Your task to perform on an android device: delete location history Image 0: 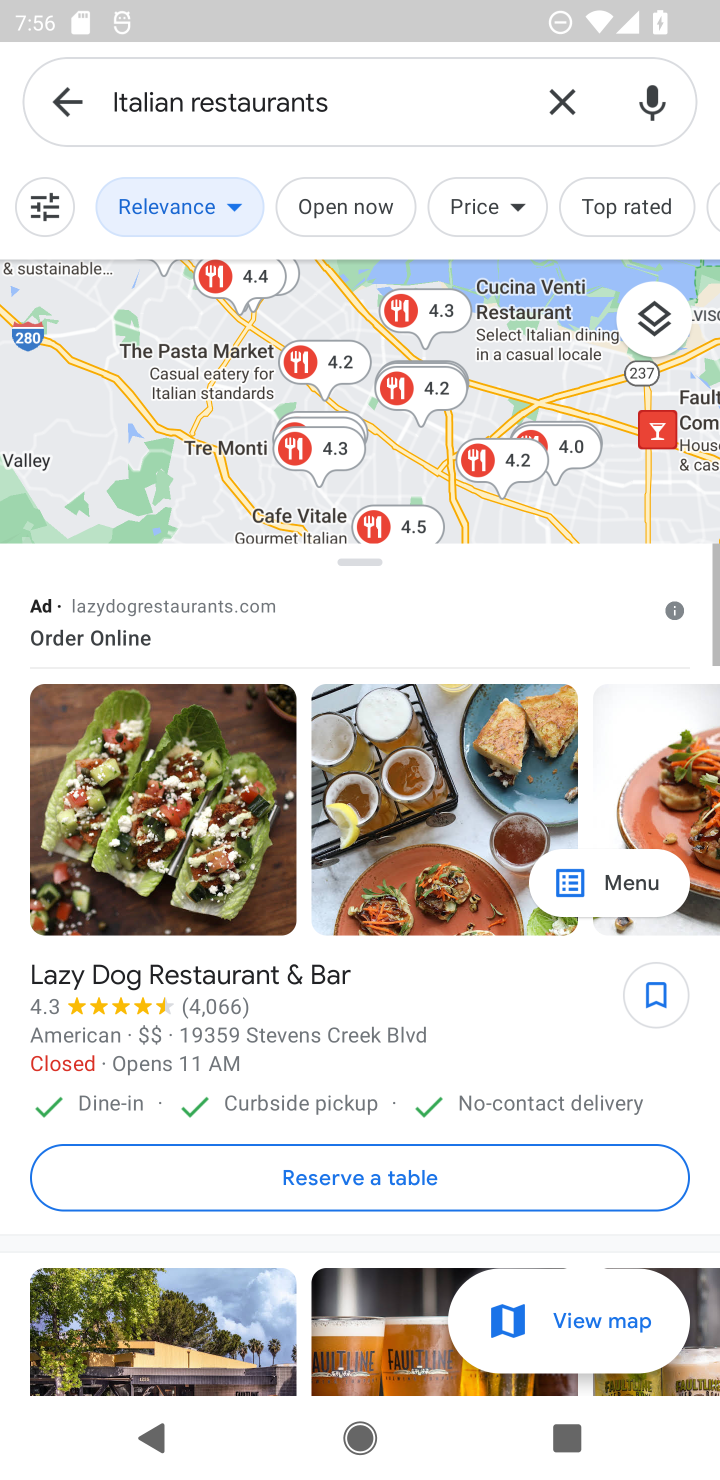
Step 0: press home button
Your task to perform on an android device: delete location history Image 1: 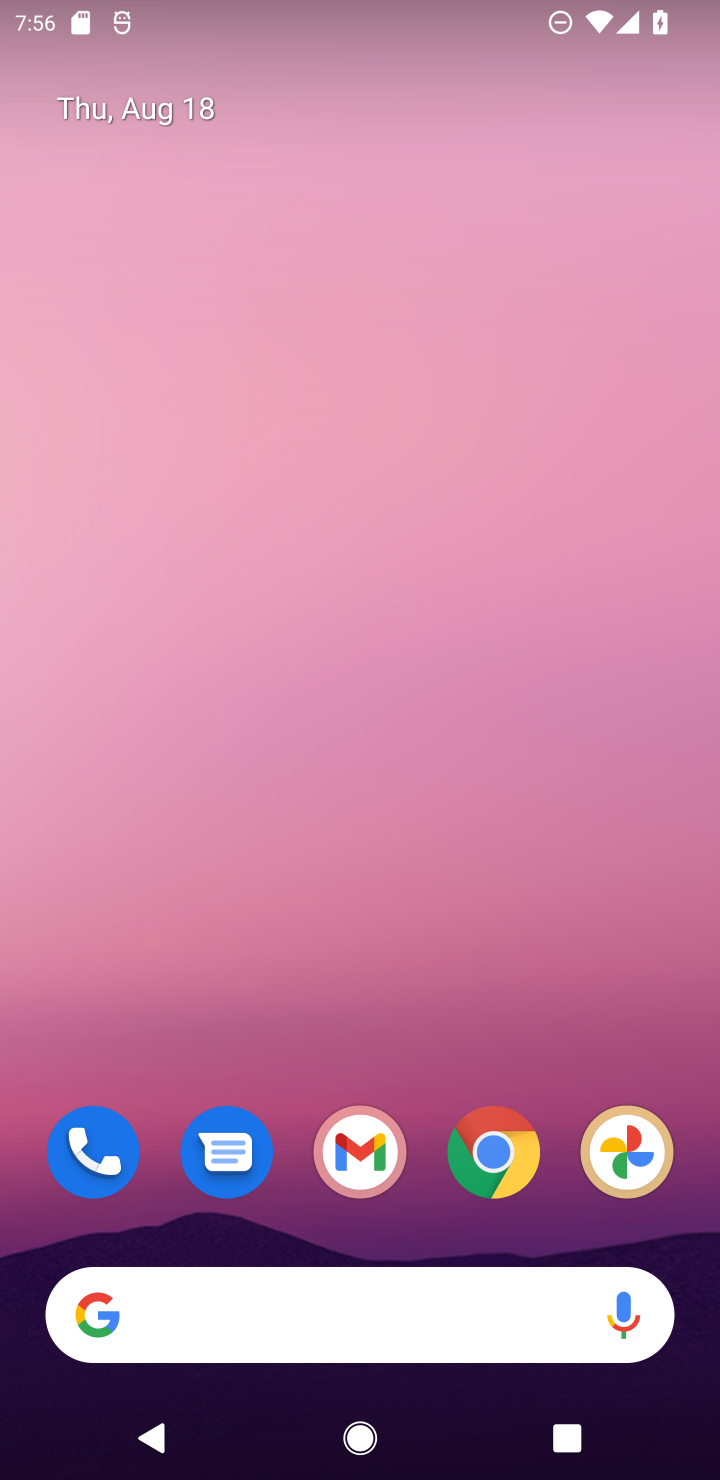
Step 1: drag from (432, 325) to (442, 203)
Your task to perform on an android device: delete location history Image 2: 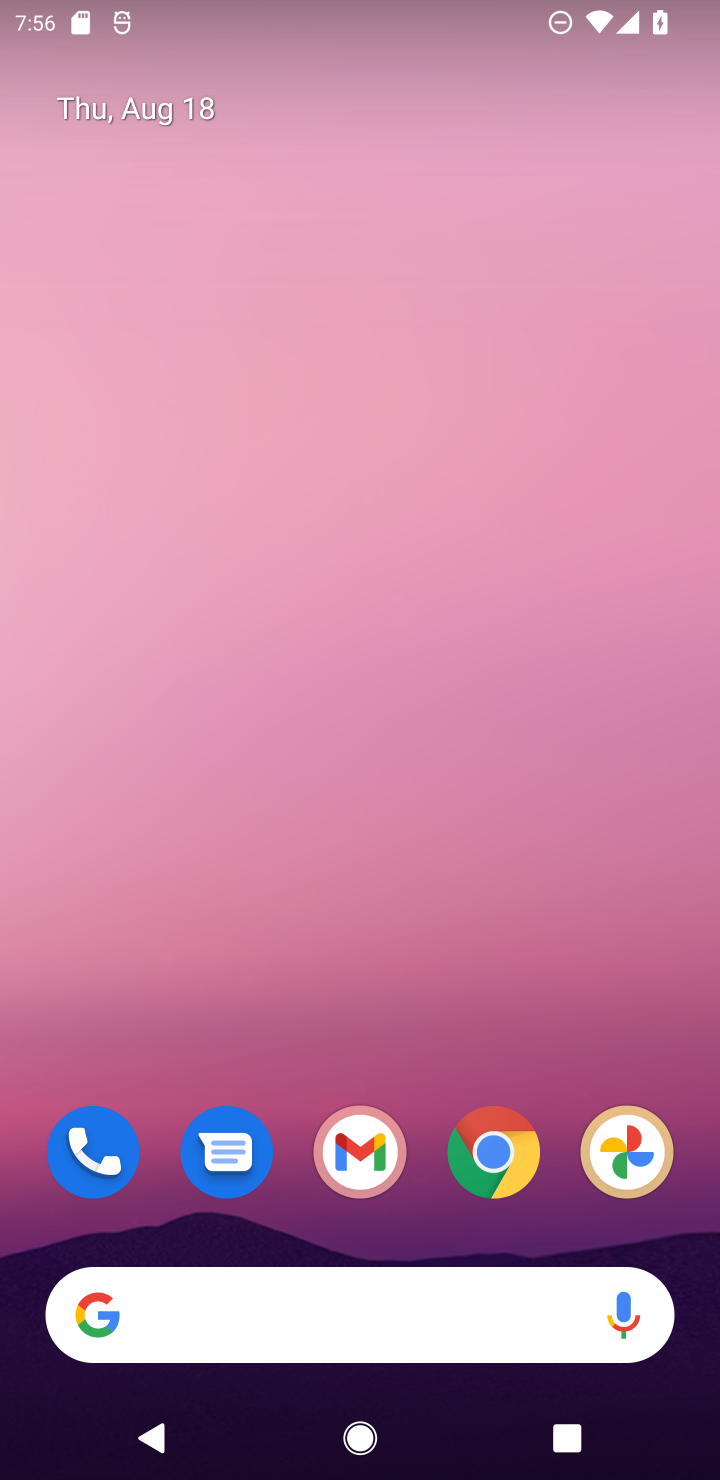
Step 2: drag from (413, 1093) to (370, 5)
Your task to perform on an android device: delete location history Image 3: 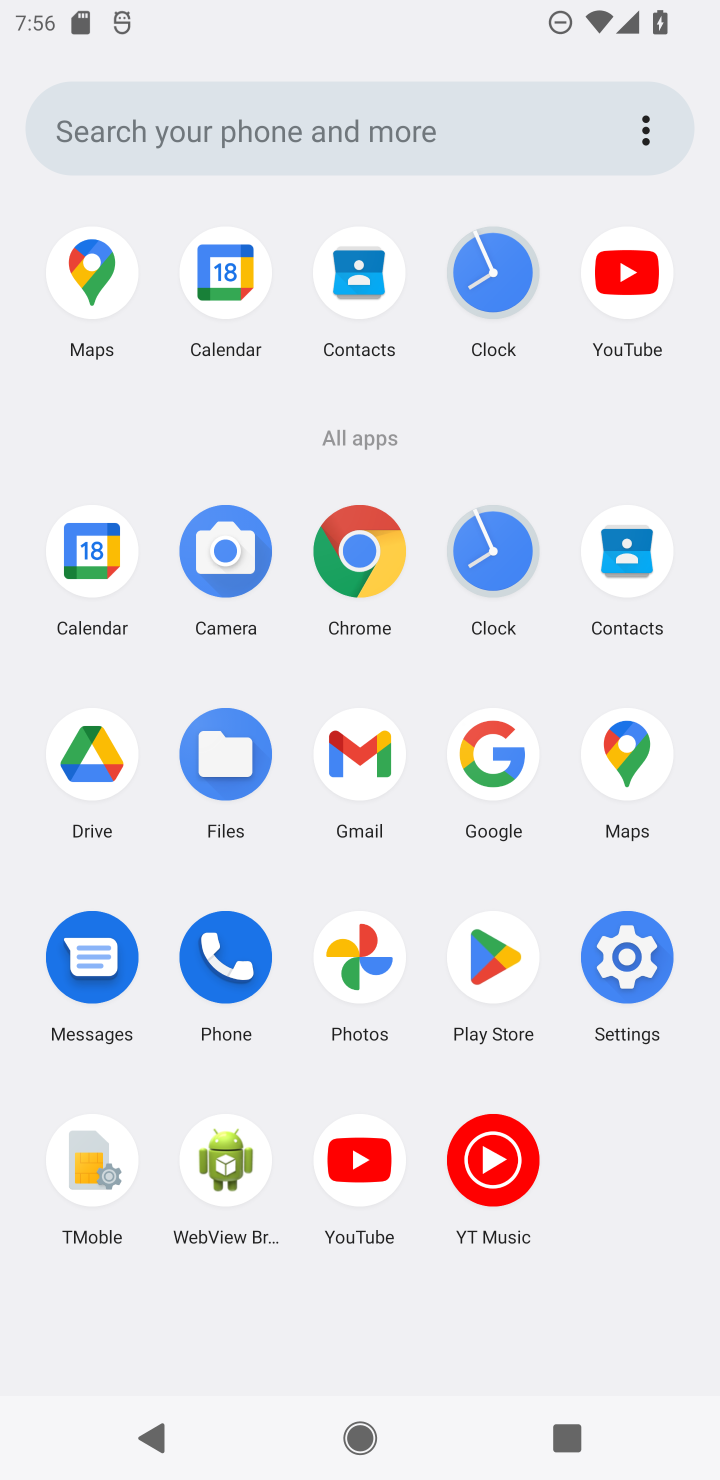
Step 3: click (367, 756)
Your task to perform on an android device: delete location history Image 4: 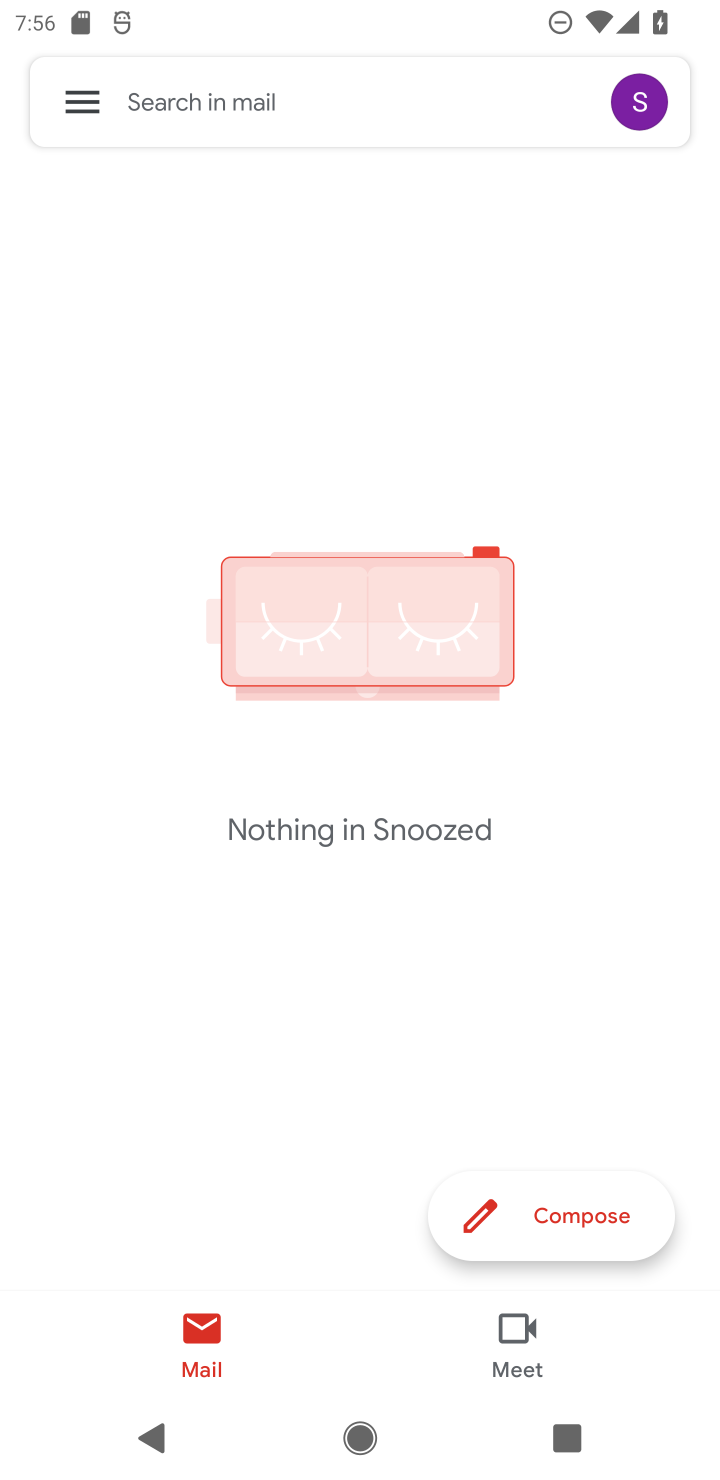
Step 4: press back button
Your task to perform on an android device: delete location history Image 5: 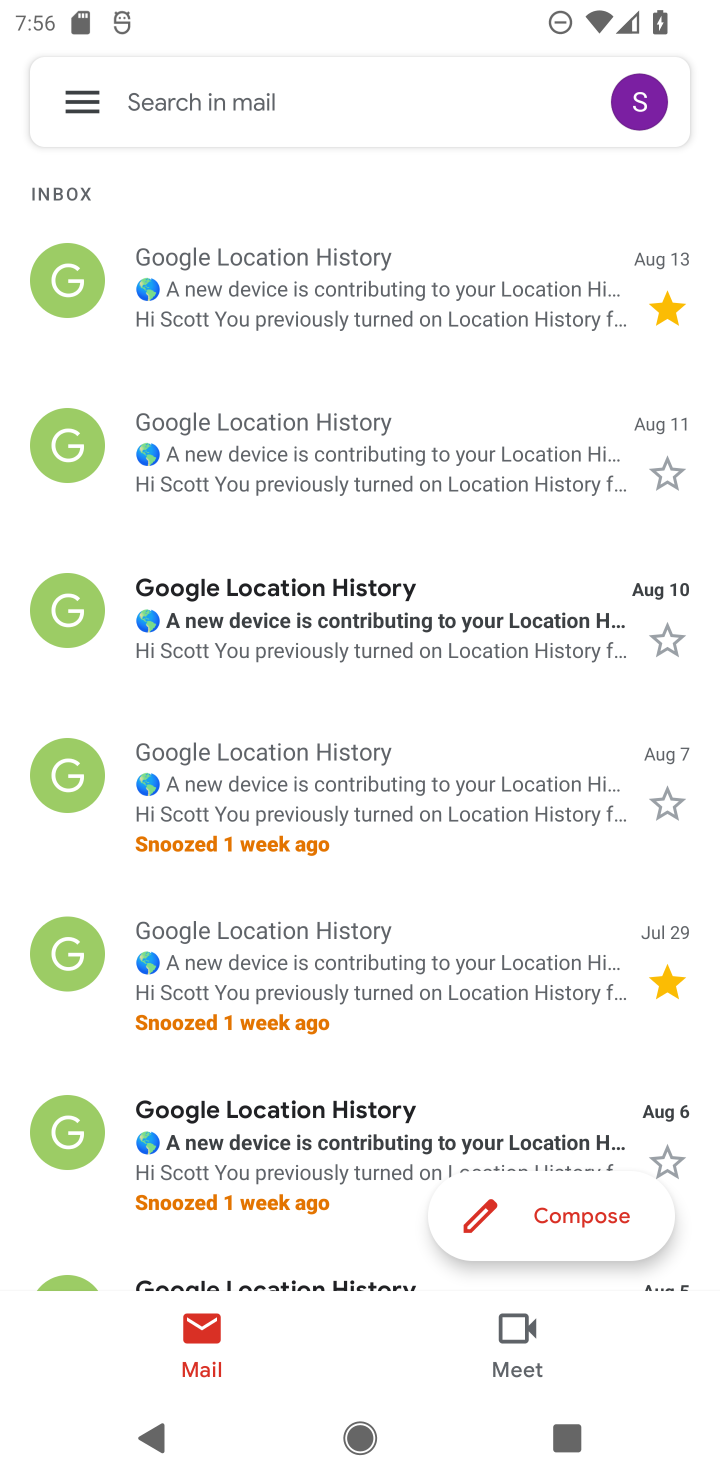
Step 5: press back button
Your task to perform on an android device: delete location history Image 6: 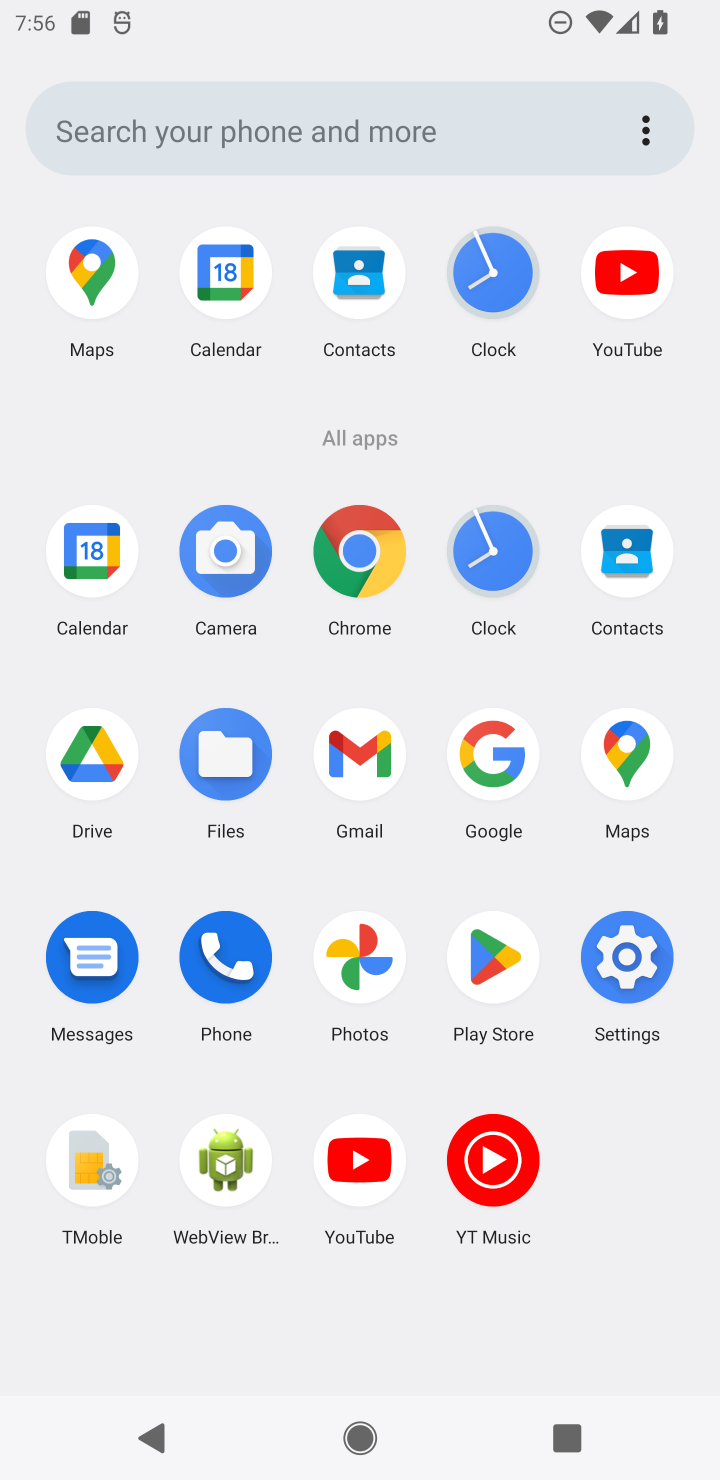
Step 6: click (621, 964)
Your task to perform on an android device: delete location history Image 7: 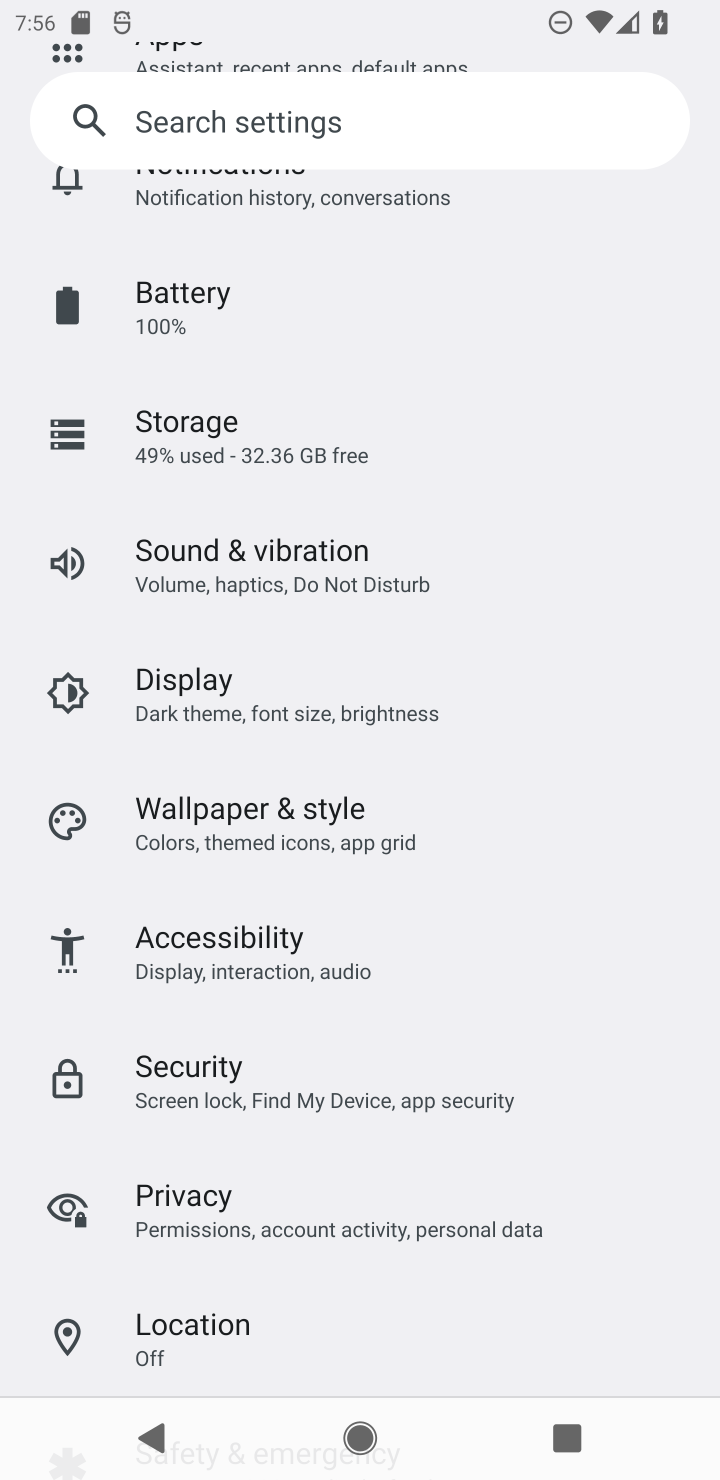
Step 7: click (220, 1332)
Your task to perform on an android device: delete location history Image 8: 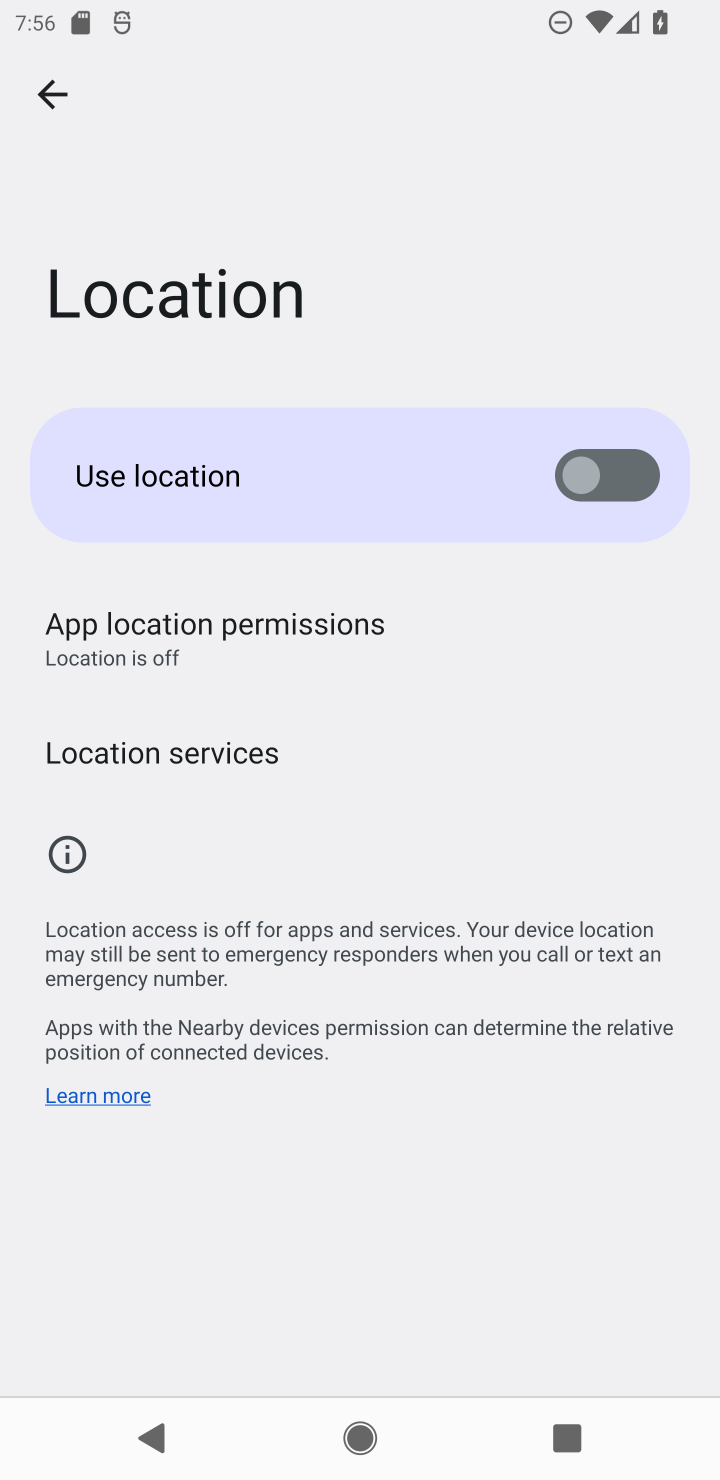
Step 8: click (157, 760)
Your task to perform on an android device: delete location history Image 9: 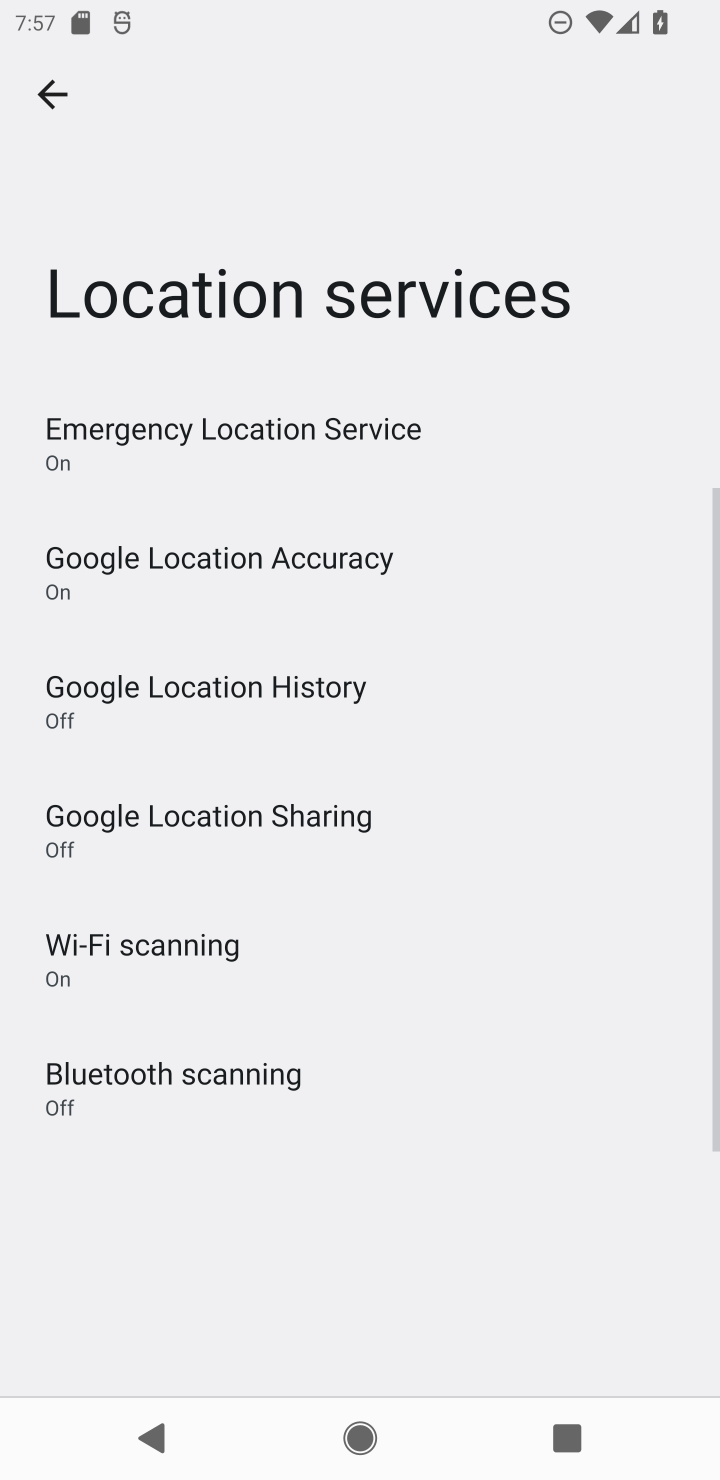
Step 9: click (269, 707)
Your task to perform on an android device: delete location history Image 10: 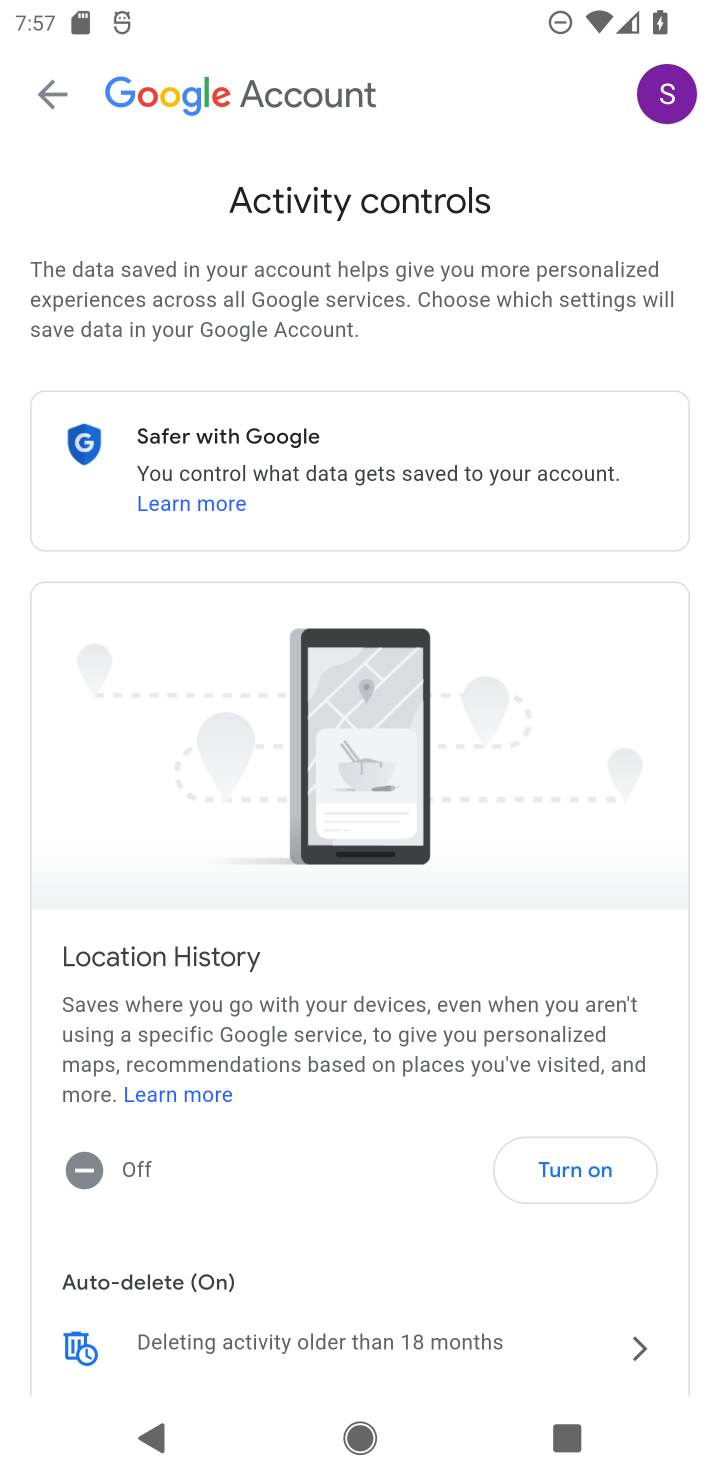
Step 10: drag from (325, 1166) to (356, 270)
Your task to perform on an android device: delete location history Image 11: 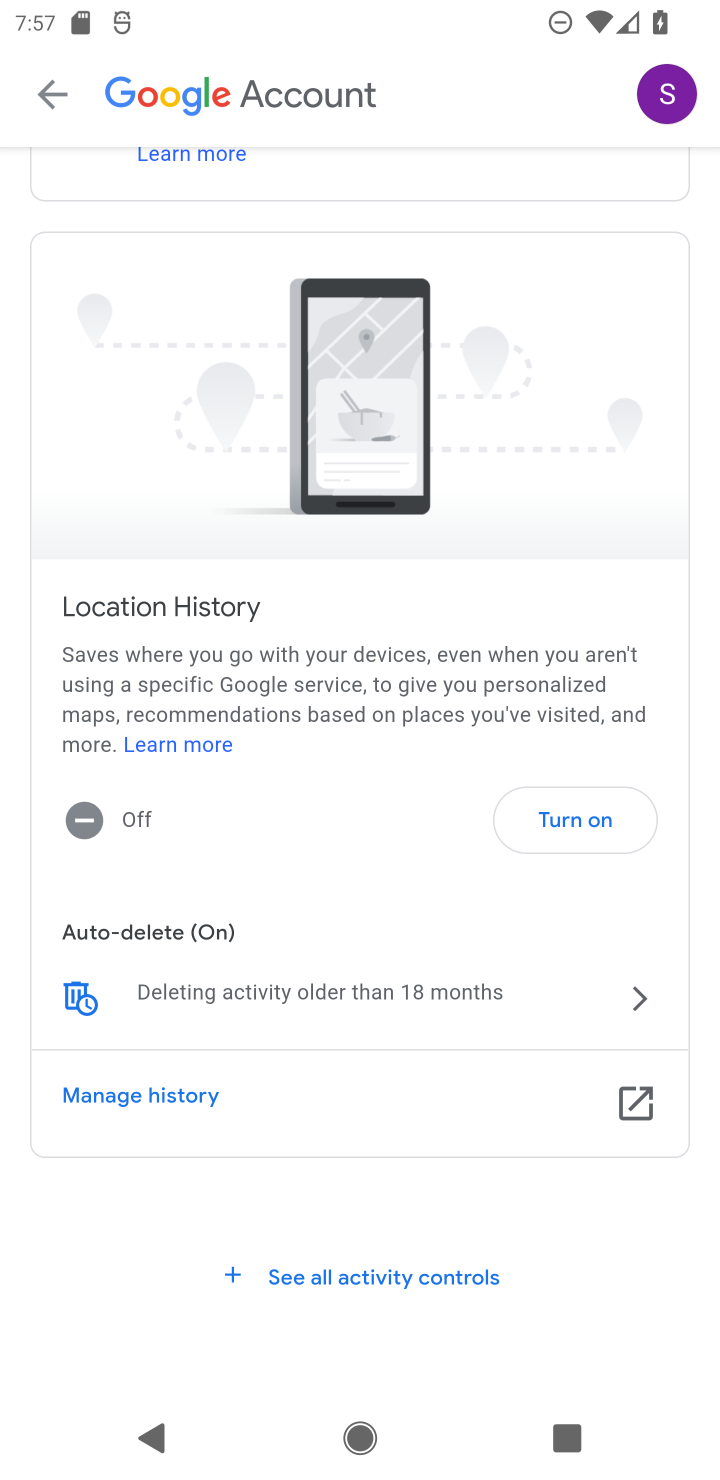
Step 11: click (82, 1008)
Your task to perform on an android device: delete location history Image 12: 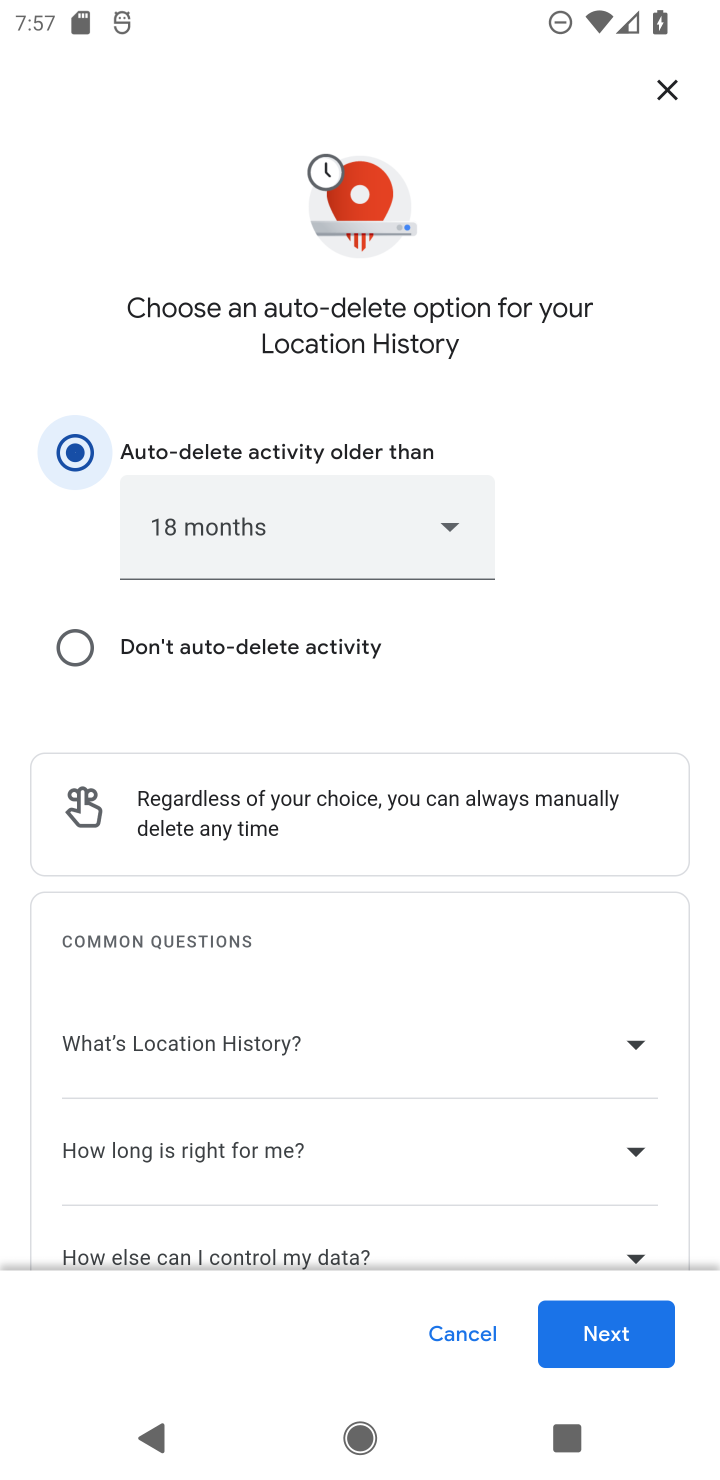
Step 12: click (597, 1346)
Your task to perform on an android device: delete location history Image 13: 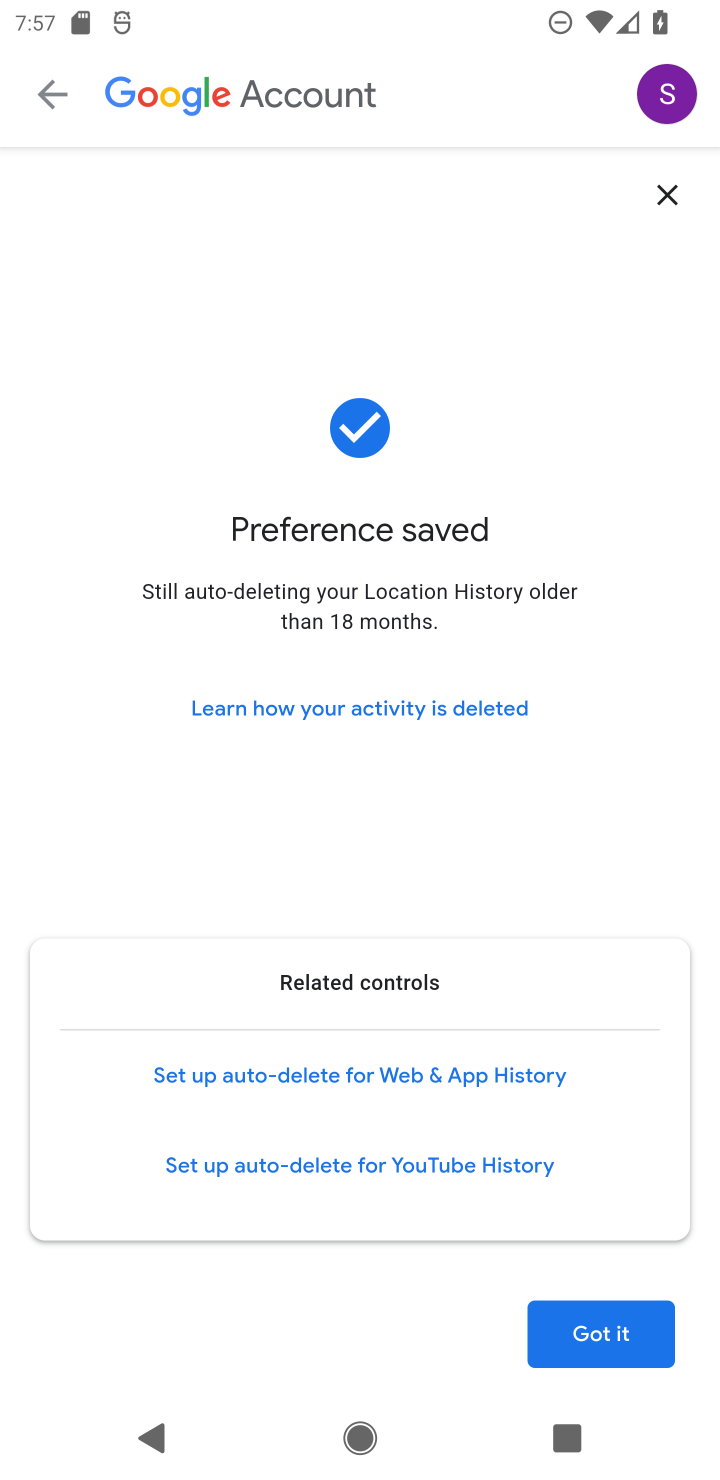
Step 13: click (607, 1334)
Your task to perform on an android device: delete location history Image 14: 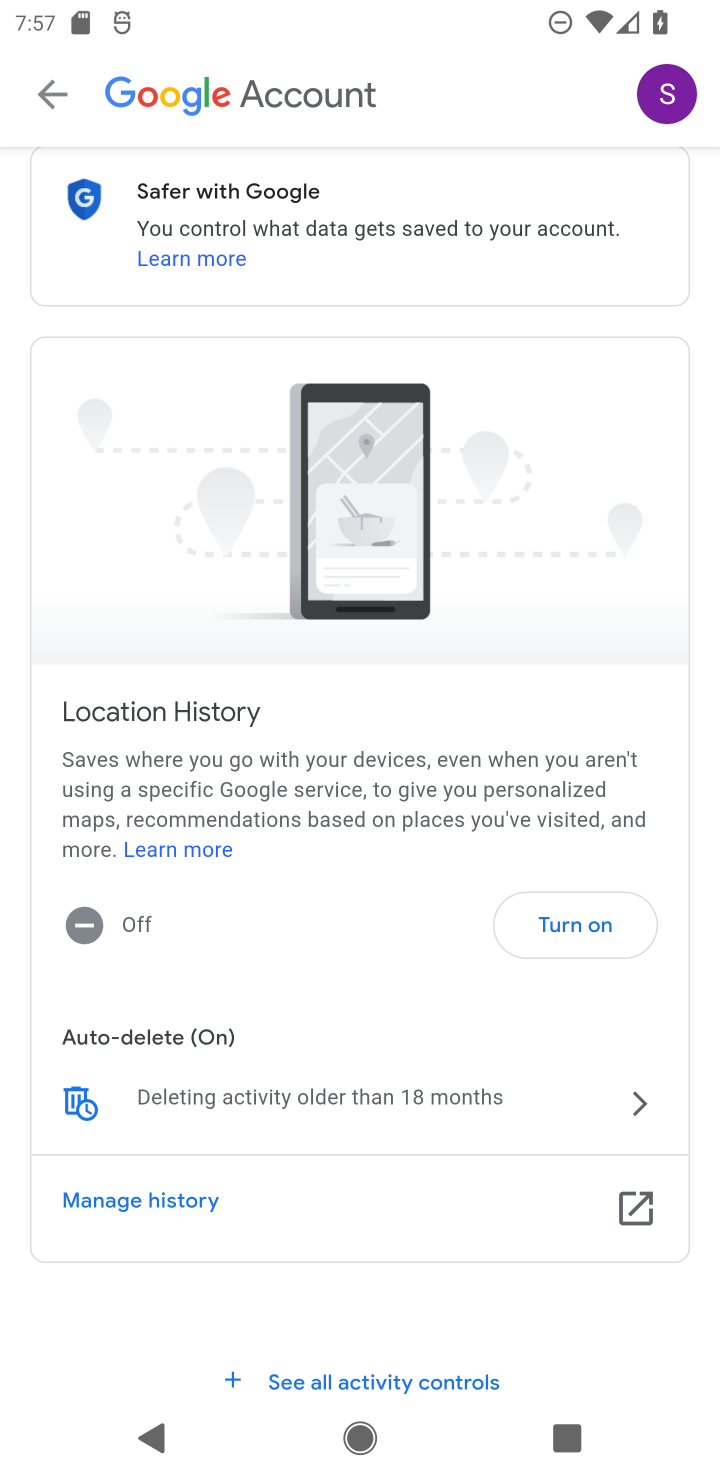
Step 14: task complete